Your task to perform on an android device: change the clock display to digital Image 0: 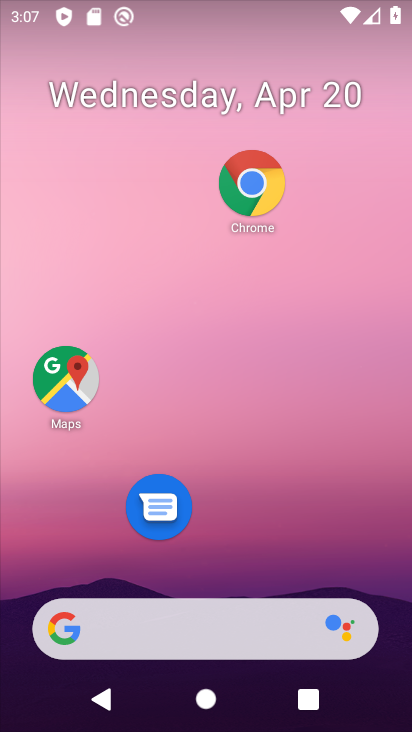
Step 0: drag from (221, 570) to (167, 122)
Your task to perform on an android device: change the clock display to digital Image 1: 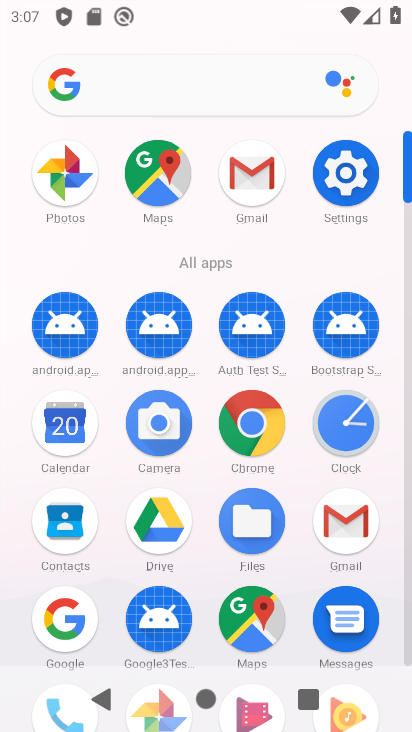
Step 1: click (341, 422)
Your task to perform on an android device: change the clock display to digital Image 2: 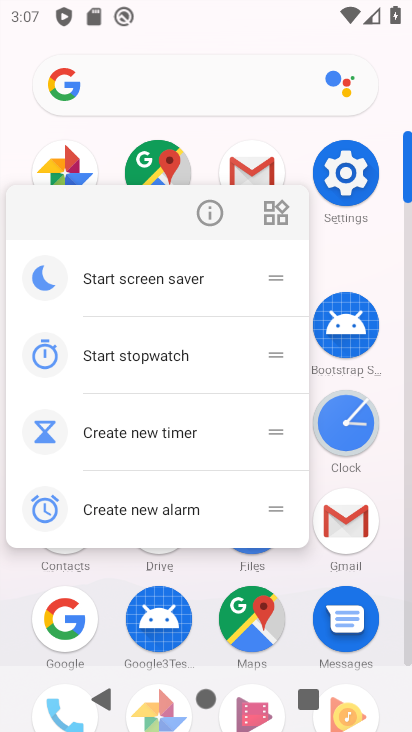
Step 2: click (344, 420)
Your task to perform on an android device: change the clock display to digital Image 3: 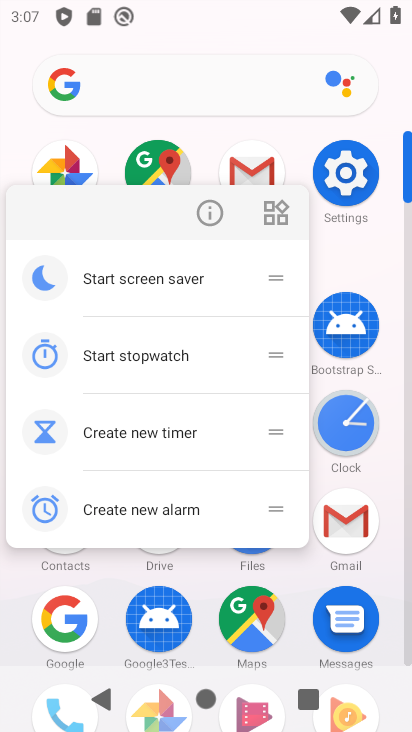
Step 3: click (335, 424)
Your task to perform on an android device: change the clock display to digital Image 4: 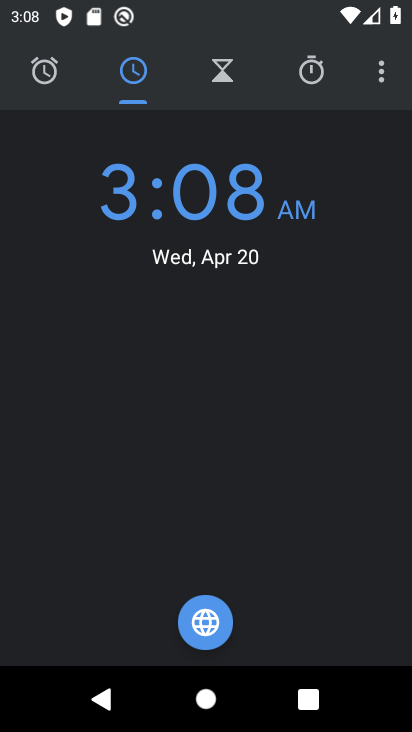
Step 4: click (385, 61)
Your task to perform on an android device: change the clock display to digital Image 5: 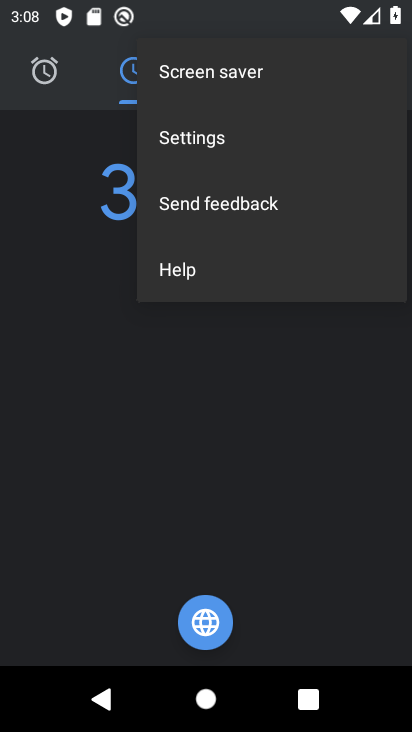
Step 5: click (208, 147)
Your task to perform on an android device: change the clock display to digital Image 6: 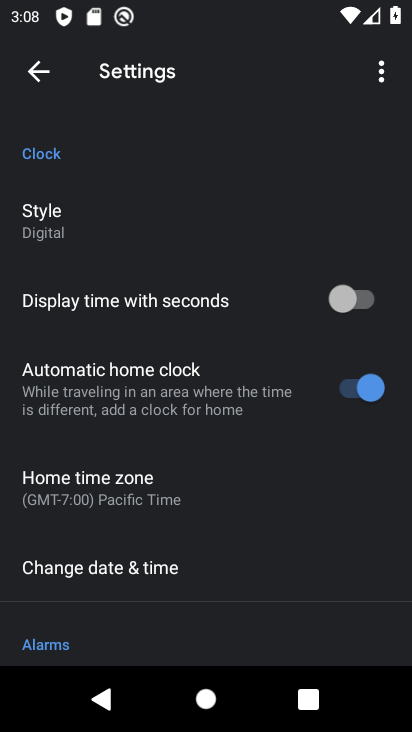
Step 6: click (96, 209)
Your task to perform on an android device: change the clock display to digital Image 7: 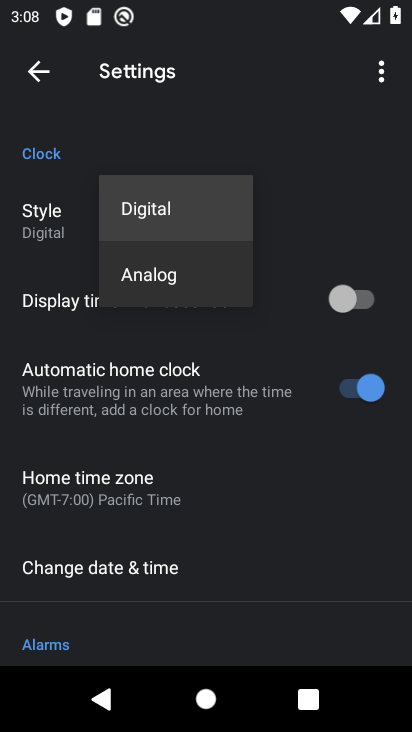
Step 7: task complete